Your task to perform on an android device: turn off airplane mode Image 0: 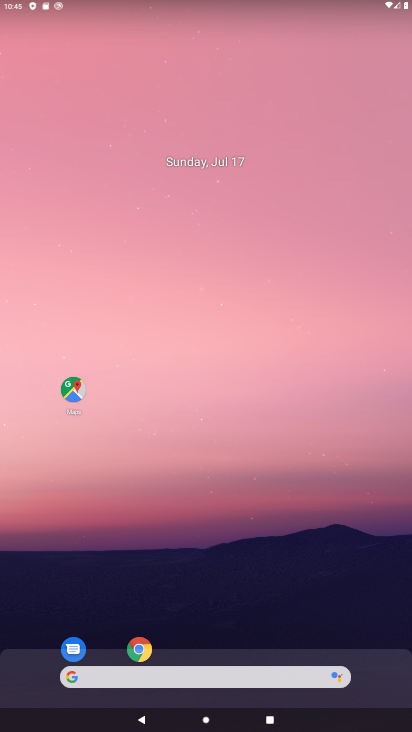
Step 0: drag from (232, 691) to (234, 133)
Your task to perform on an android device: turn off airplane mode Image 1: 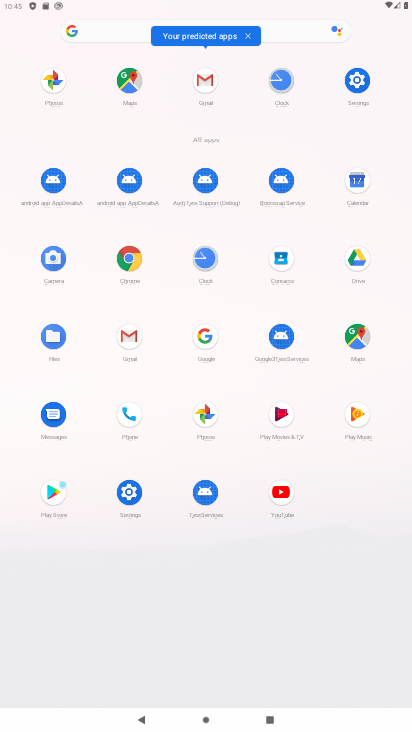
Step 1: click (124, 494)
Your task to perform on an android device: turn off airplane mode Image 2: 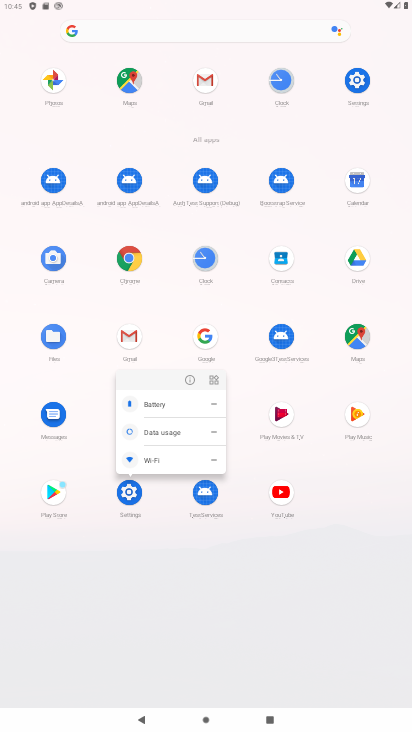
Step 2: click (124, 494)
Your task to perform on an android device: turn off airplane mode Image 3: 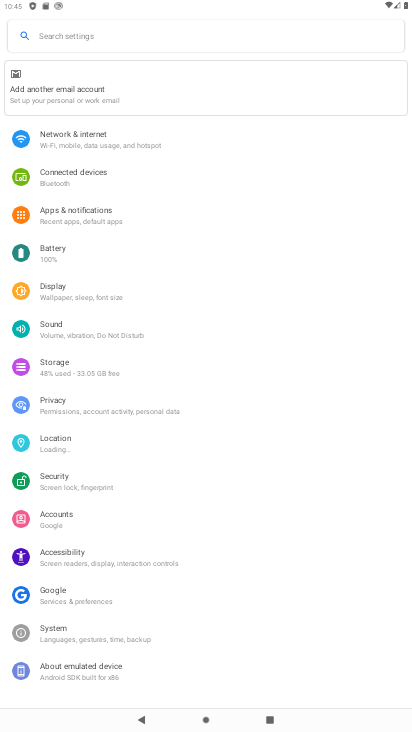
Step 3: click (89, 137)
Your task to perform on an android device: turn off airplane mode Image 4: 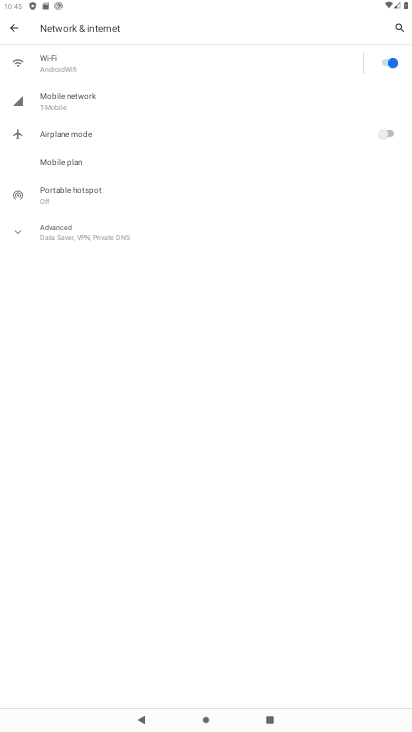
Step 4: task complete